Your task to perform on an android device: toggle improve location accuracy Image 0: 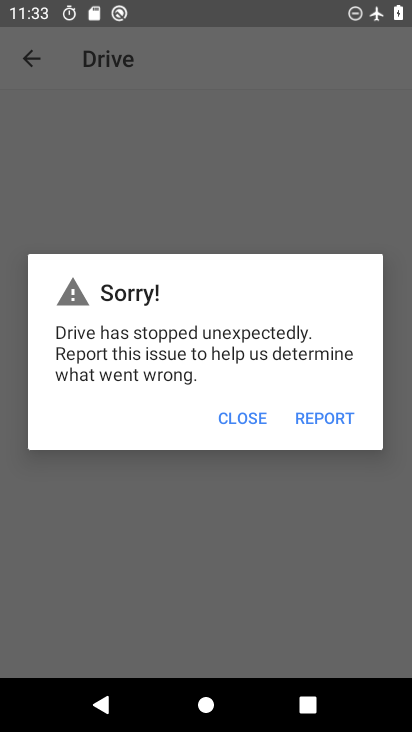
Step 0: press home button
Your task to perform on an android device: toggle improve location accuracy Image 1: 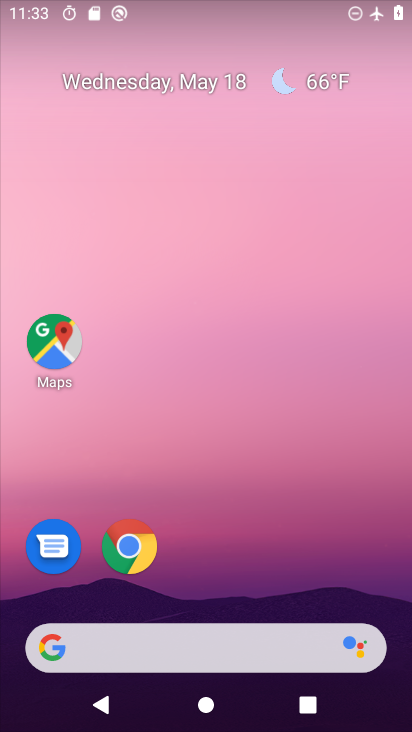
Step 1: drag from (222, 601) to (268, 24)
Your task to perform on an android device: toggle improve location accuracy Image 2: 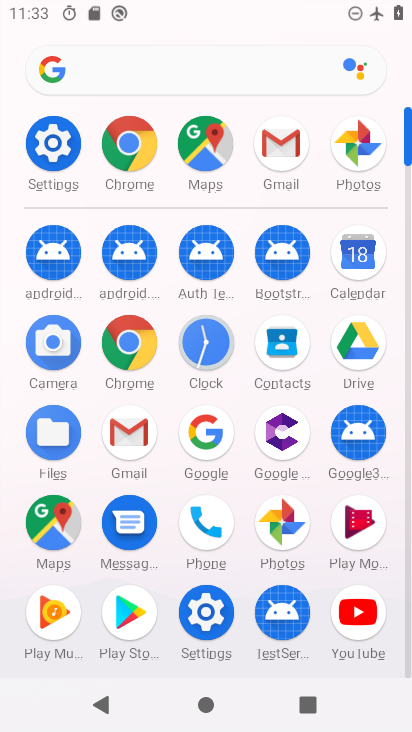
Step 2: click (201, 603)
Your task to perform on an android device: toggle improve location accuracy Image 3: 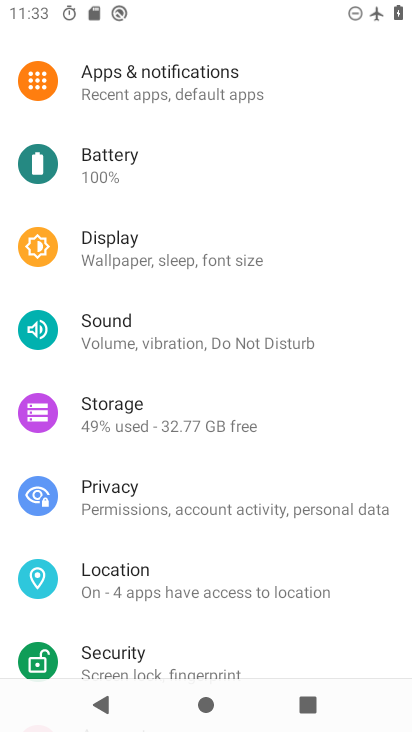
Step 3: click (201, 603)
Your task to perform on an android device: toggle improve location accuracy Image 4: 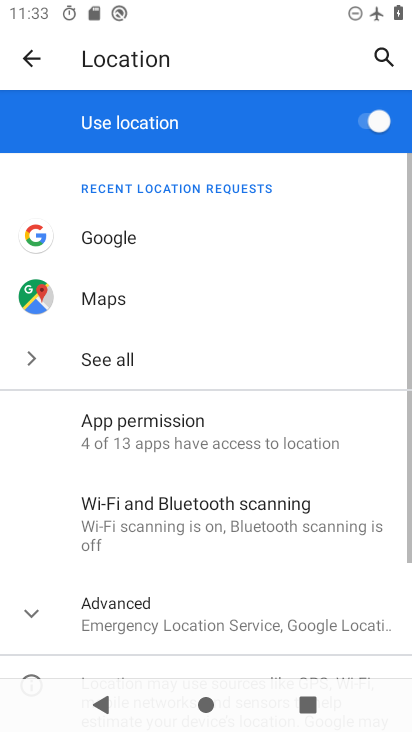
Step 4: click (201, 605)
Your task to perform on an android device: toggle improve location accuracy Image 5: 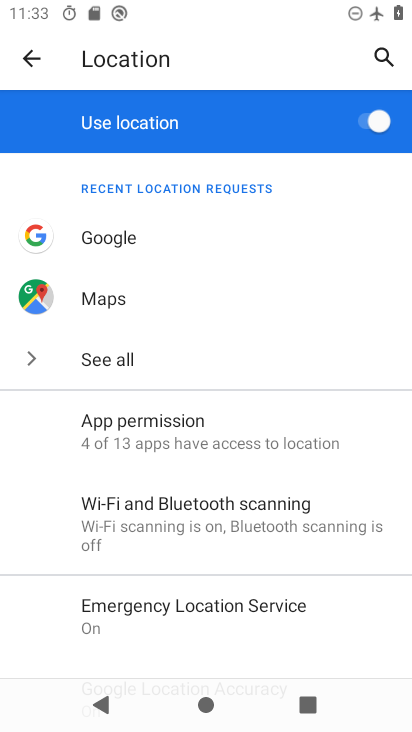
Step 5: drag from (61, 646) to (162, 209)
Your task to perform on an android device: toggle improve location accuracy Image 6: 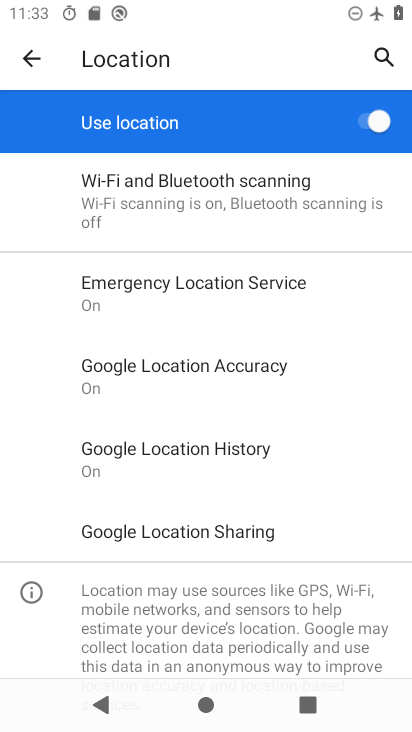
Step 6: click (248, 376)
Your task to perform on an android device: toggle improve location accuracy Image 7: 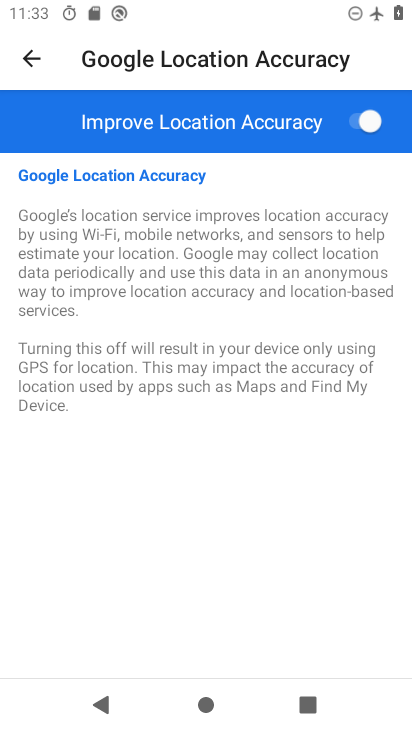
Step 7: click (354, 124)
Your task to perform on an android device: toggle improve location accuracy Image 8: 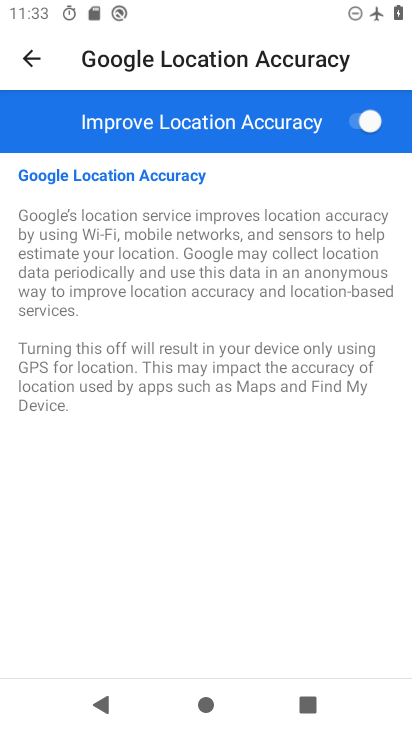
Step 8: click (354, 124)
Your task to perform on an android device: toggle improve location accuracy Image 9: 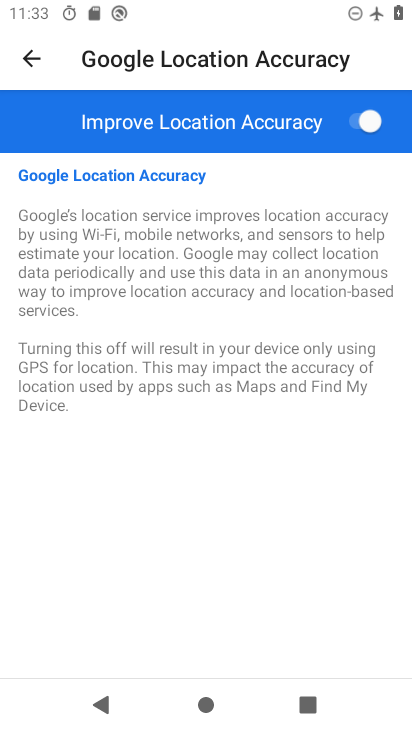
Step 9: click (363, 117)
Your task to perform on an android device: toggle improve location accuracy Image 10: 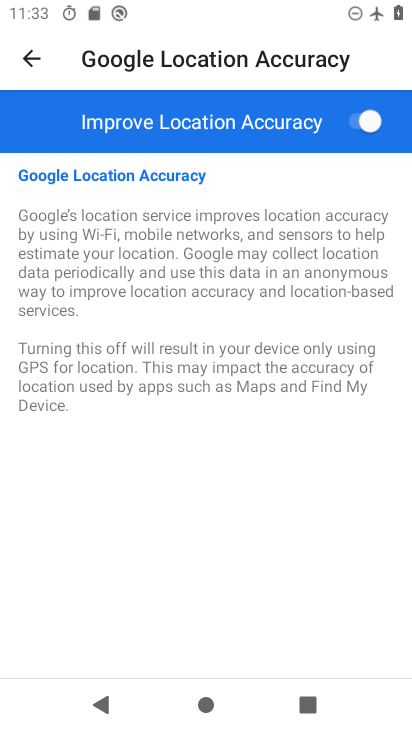
Step 10: click (363, 117)
Your task to perform on an android device: toggle improve location accuracy Image 11: 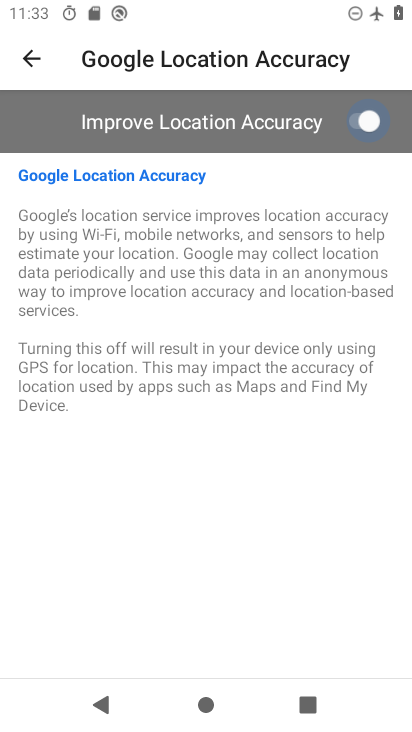
Step 11: click (363, 117)
Your task to perform on an android device: toggle improve location accuracy Image 12: 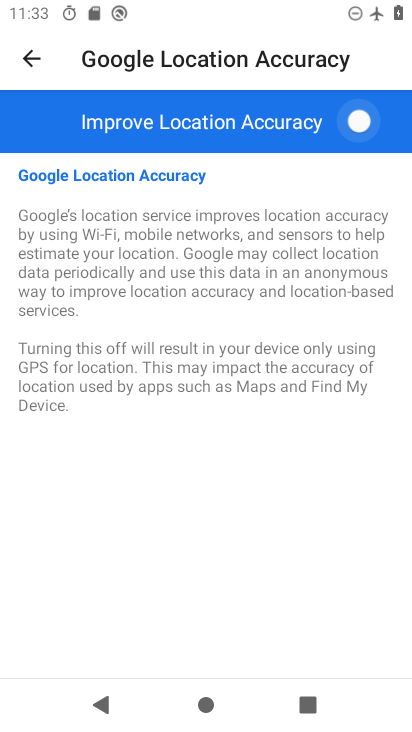
Step 12: click (363, 117)
Your task to perform on an android device: toggle improve location accuracy Image 13: 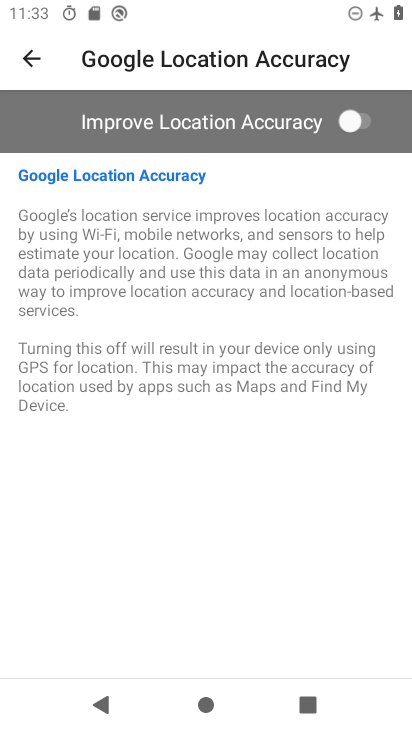
Step 13: task complete